Your task to perform on an android device: Open Amazon Image 0: 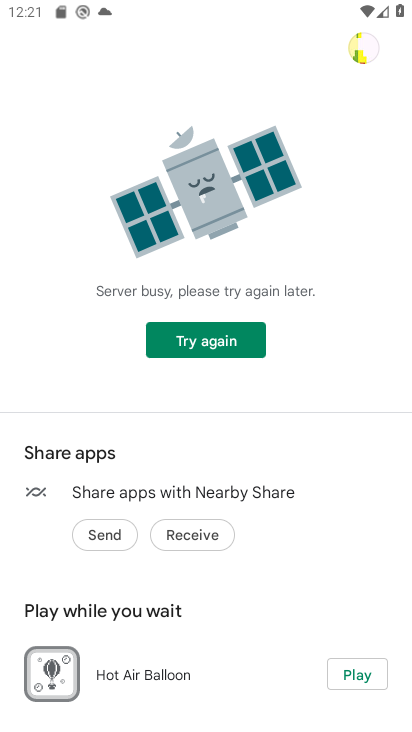
Step 0: press home button
Your task to perform on an android device: Open Amazon Image 1: 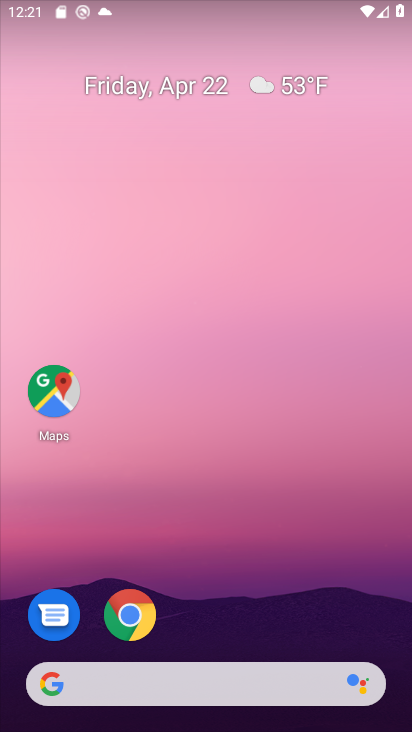
Step 1: click (137, 618)
Your task to perform on an android device: Open Amazon Image 2: 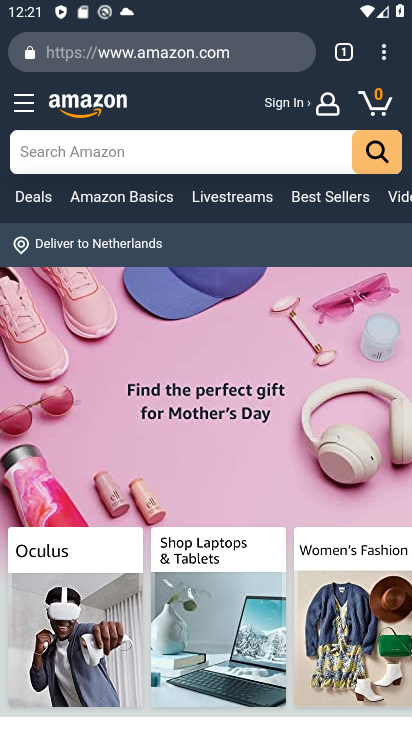
Step 2: task complete